Your task to perform on an android device: empty trash in google photos Image 0: 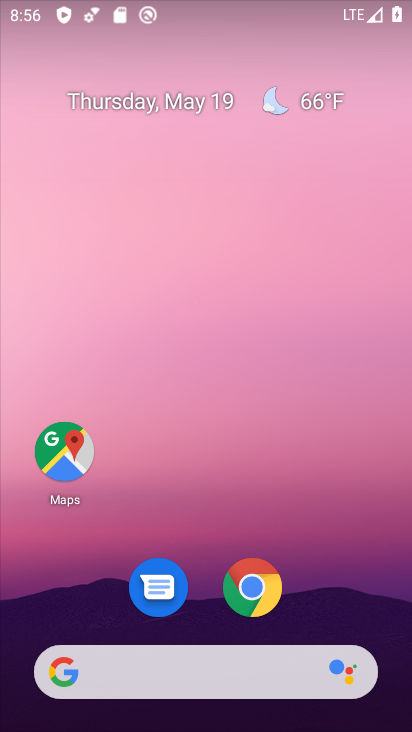
Step 0: drag from (217, 701) to (234, 218)
Your task to perform on an android device: empty trash in google photos Image 1: 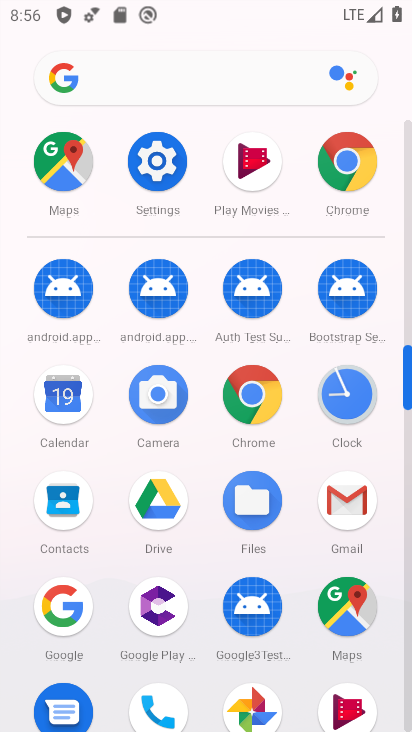
Step 1: click (241, 669)
Your task to perform on an android device: empty trash in google photos Image 2: 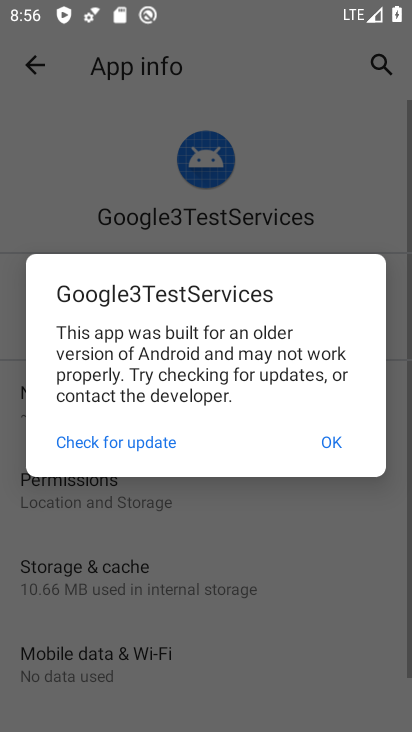
Step 2: press home button
Your task to perform on an android device: empty trash in google photos Image 3: 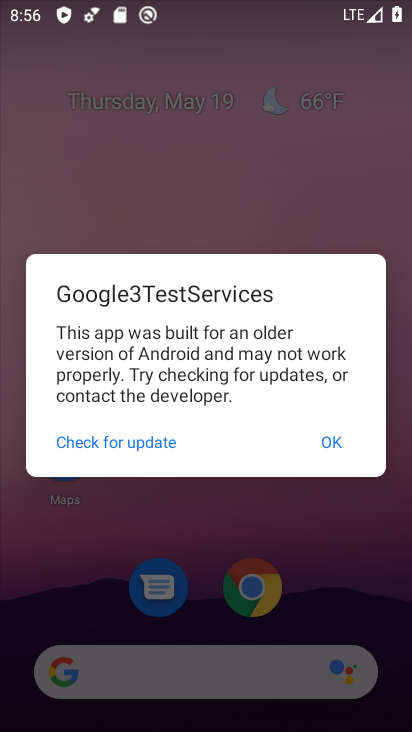
Step 3: click (350, 453)
Your task to perform on an android device: empty trash in google photos Image 4: 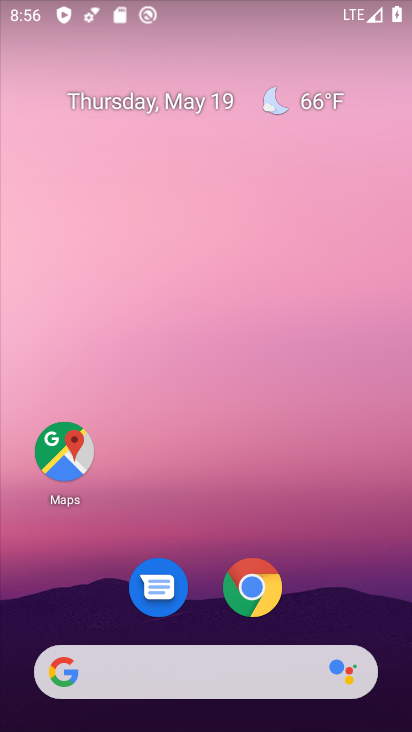
Step 4: drag from (250, 696) to (264, 158)
Your task to perform on an android device: empty trash in google photos Image 5: 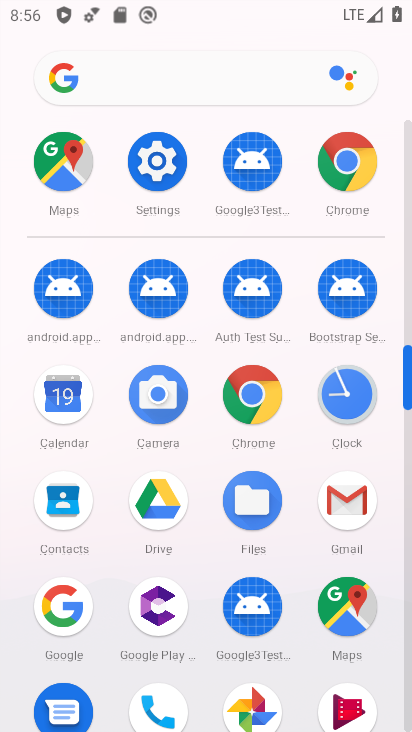
Step 5: click (253, 699)
Your task to perform on an android device: empty trash in google photos Image 6: 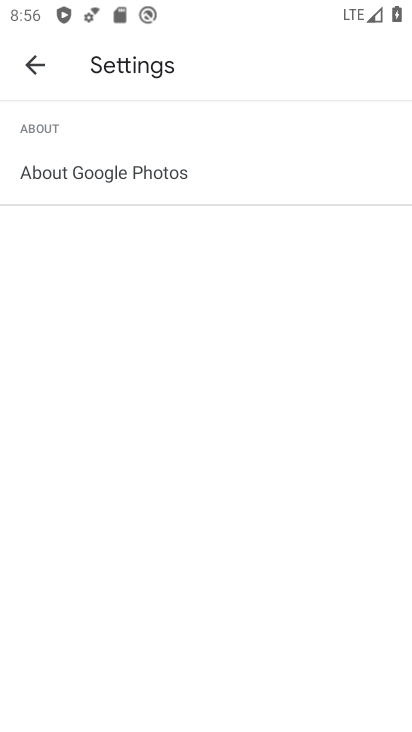
Step 6: click (36, 66)
Your task to perform on an android device: empty trash in google photos Image 7: 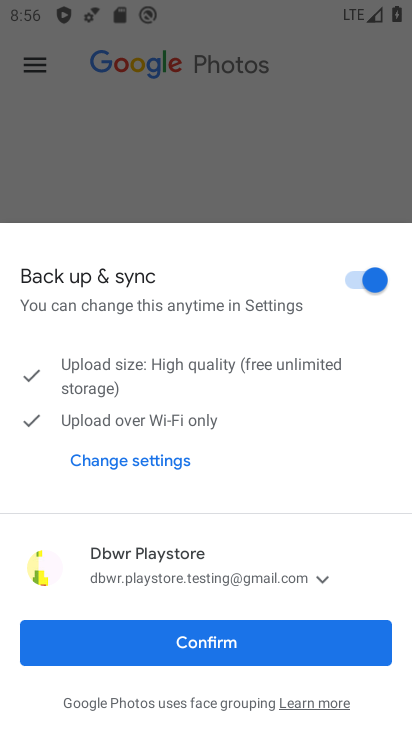
Step 7: click (24, 72)
Your task to perform on an android device: empty trash in google photos Image 8: 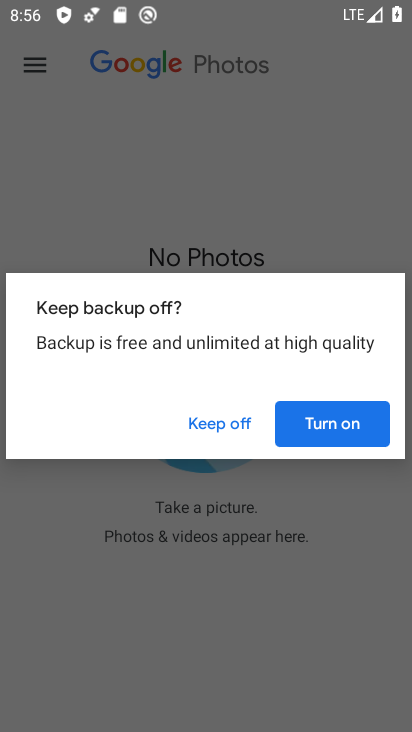
Step 8: click (338, 434)
Your task to perform on an android device: empty trash in google photos Image 9: 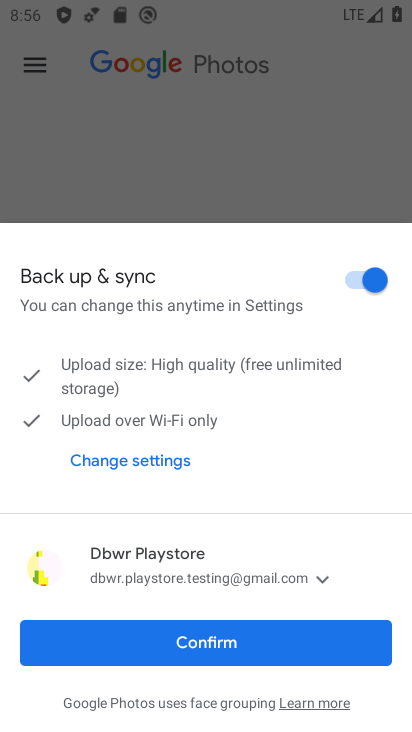
Step 9: click (215, 628)
Your task to perform on an android device: empty trash in google photos Image 10: 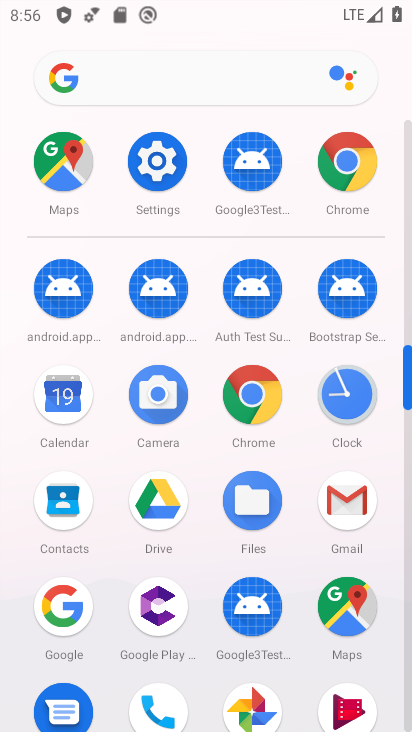
Step 10: click (258, 696)
Your task to perform on an android device: empty trash in google photos Image 11: 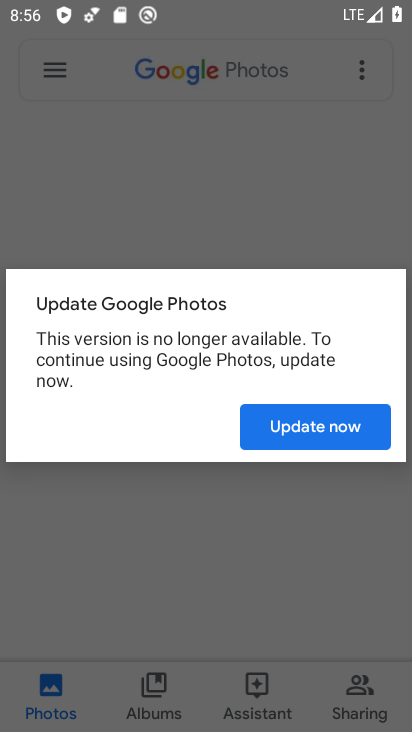
Step 11: click (315, 430)
Your task to perform on an android device: empty trash in google photos Image 12: 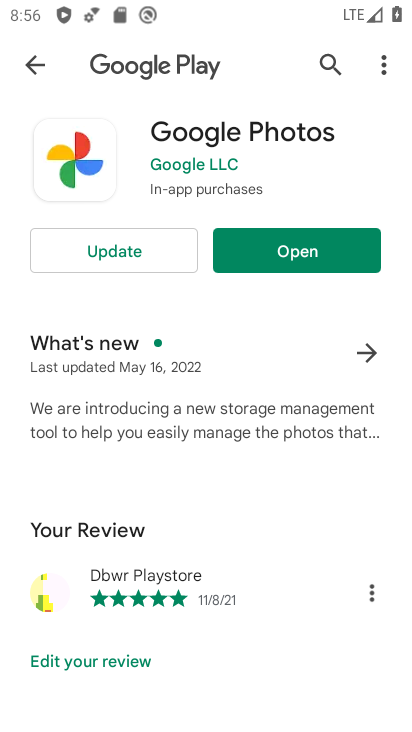
Step 12: click (267, 250)
Your task to perform on an android device: empty trash in google photos Image 13: 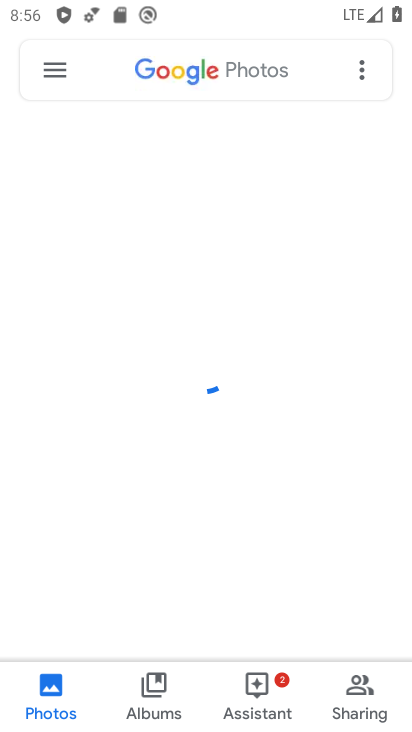
Step 13: click (42, 92)
Your task to perform on an android device: empty trash in google photos Image 14: 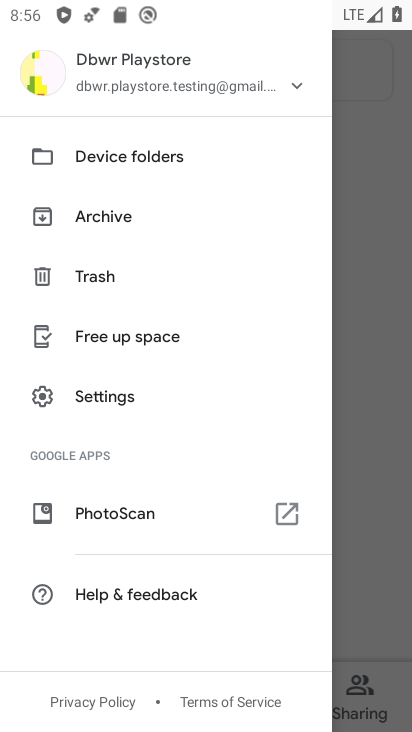
Step 14: click (92, 265)
Your task to perform on an android device: empty trash in google photos Image 15: 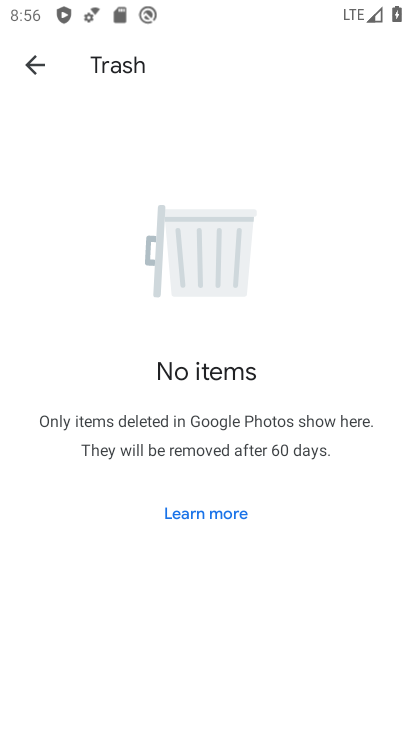
Step 15: task complete